Your task to perform on an android device: Open Youtube and go to the subscriptions tab Image 0: 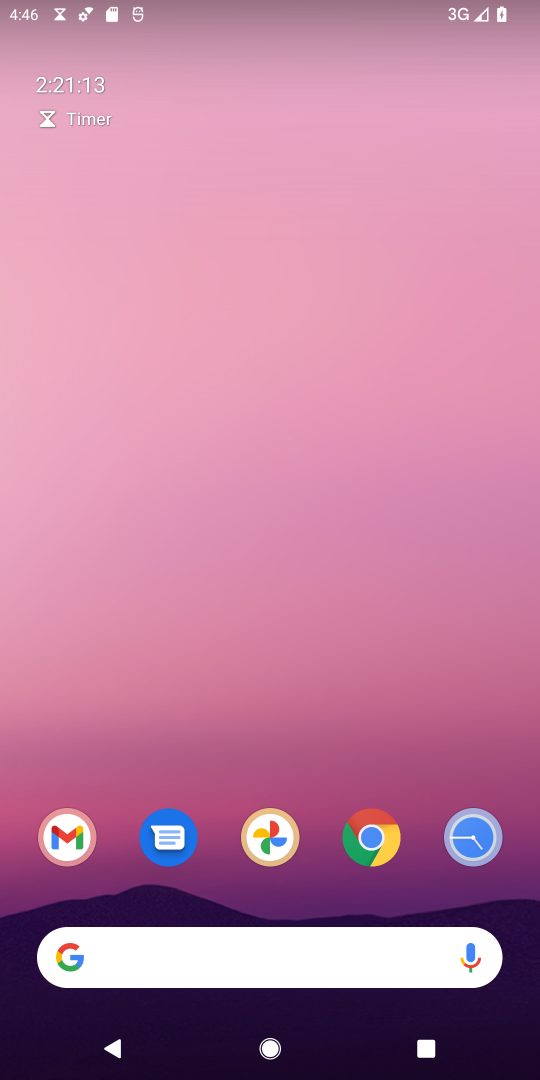
Step 0: drag from (231, 770) to (374, 42)
Your task to perform on an android device: Open Youtube and go to the subscriptions tab Image 1: 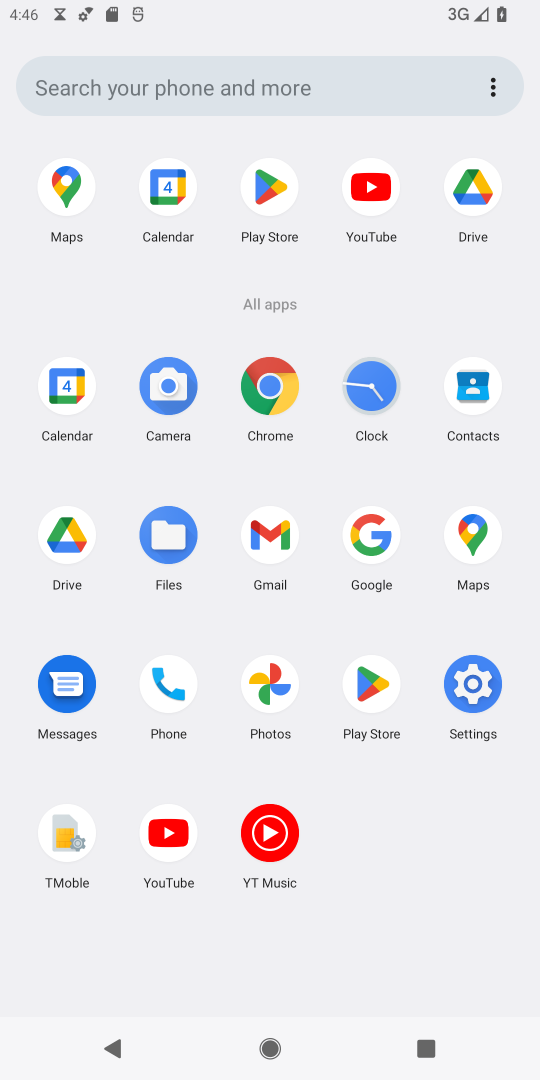
Step 1: click (160, 824)
Your task to perform on an android device: Open Youtube and go to the subscriptions tab Image 2: 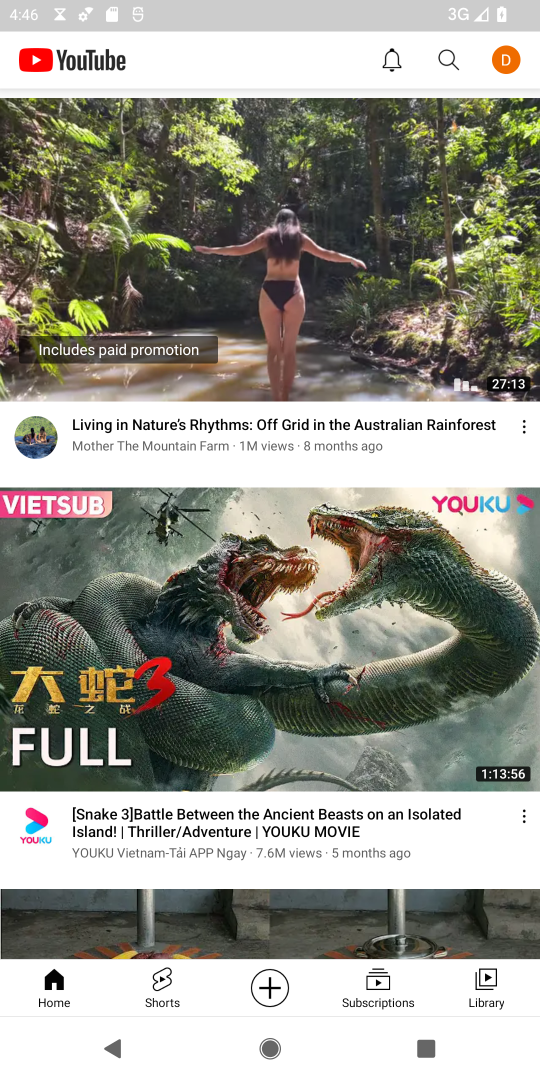
Step 2: click (386, 981)
Your task to perform on an android device: Open Youtube and go to the subscriptions tab Image 3: 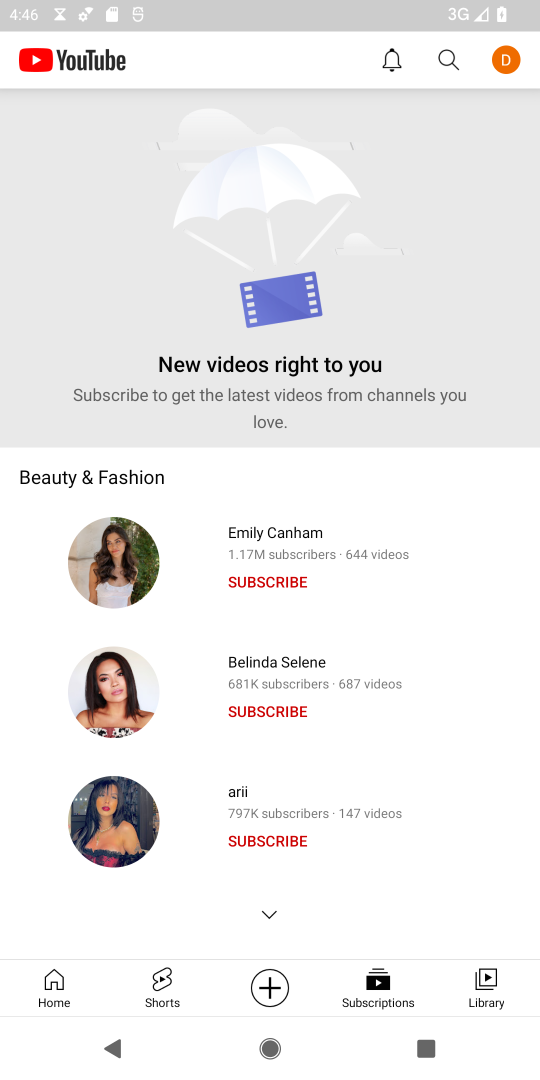
Step 3: task complete